Your task to perform on an android device: What's the weather today? Image 0: 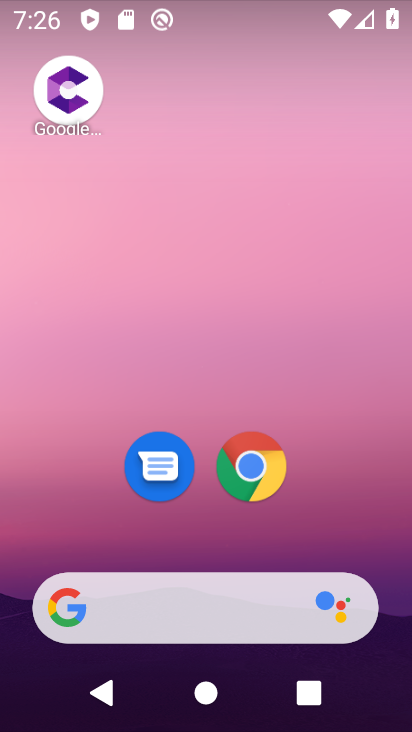
Step 0: drag from (329, 544) to (398, 199)
Your task to perform on an android device: What's the weather today? Image 1: 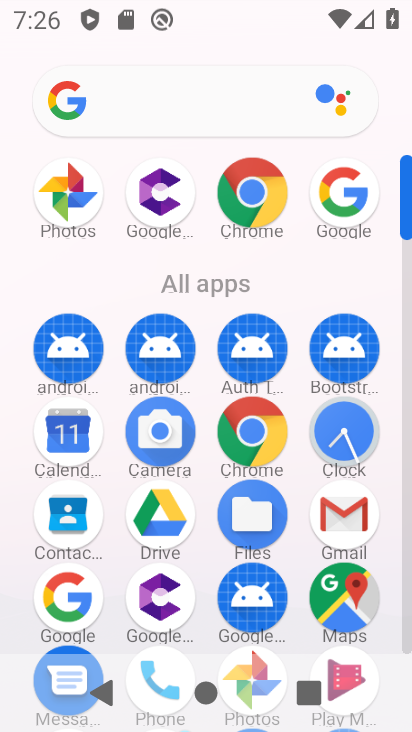
Step 1: click (247, 215)
Your task to perform on an android device: What's the weather today? Image 2: 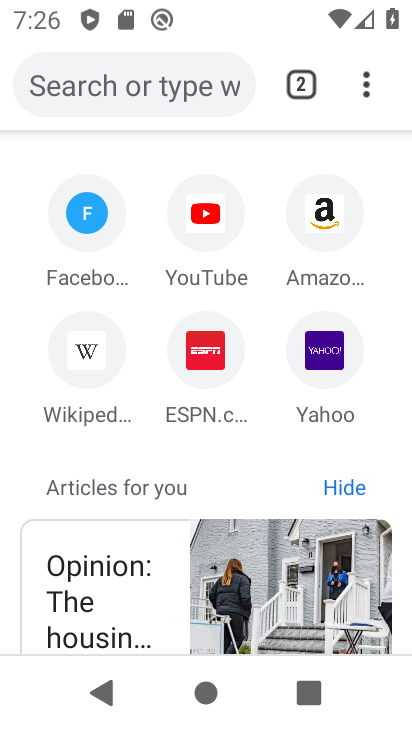
Step 2: click (174, 89)
Your task to perform on an android device: What's the weather today? Image 3: 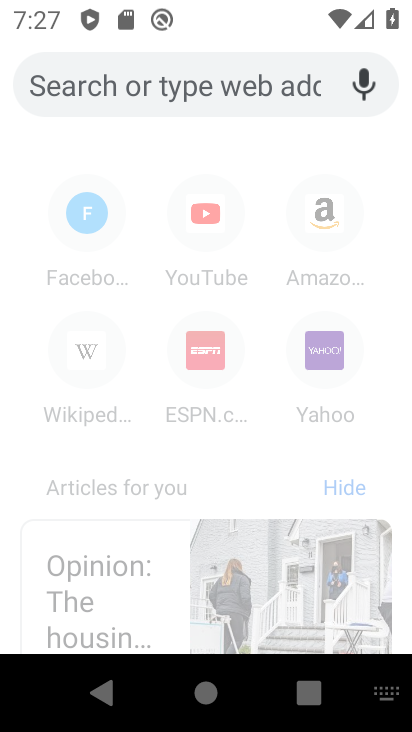
Step 3: type "What's the weather today?"
Your task to perform on an android device: What's the weather today? Image 4: 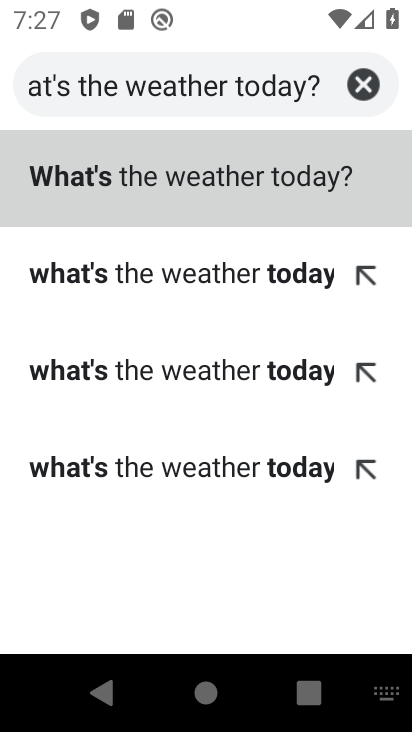
Step 4: click (246, 165)
Your task to perform on an android device: What's the weather today? Image 5: 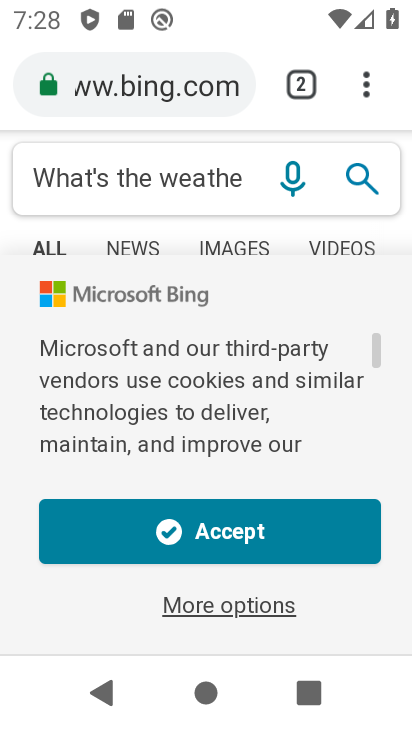
Step 5: task complete